Your task to perform on an android device: clear history in the chrome app Image 0: 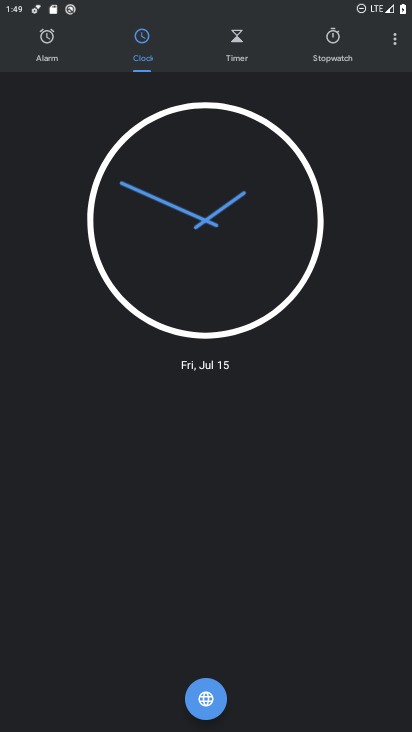
Step 0: press home button
Your task to perform on an android device: clear history in the chrome app Image 1: 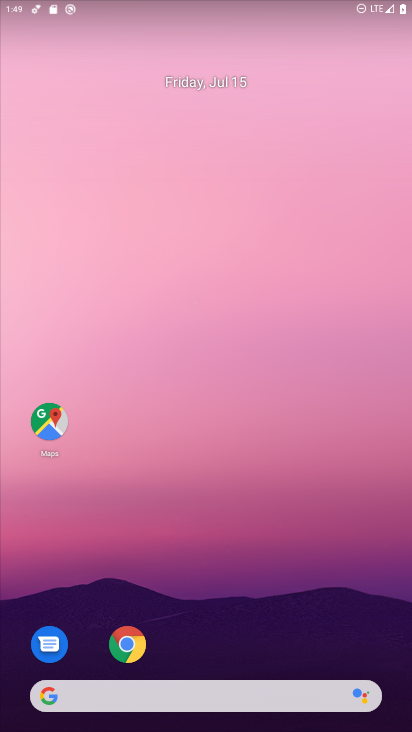
Step 1: click (139, 639)
Your task to perform on an android device: clear history in the chrome app Image 2: 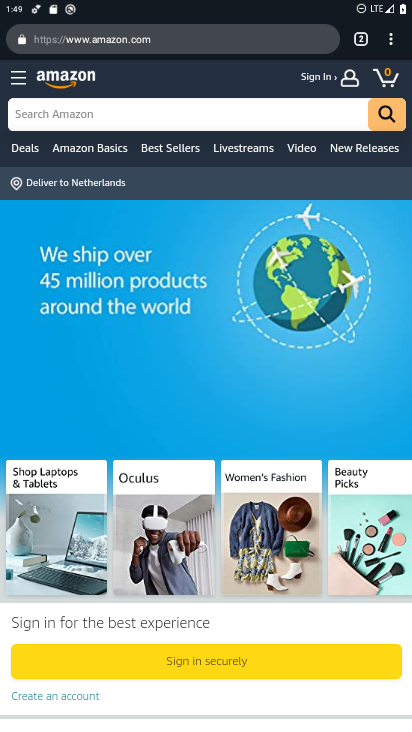
Step 2: click (387, 39)
Your task to perform on an android device: clear history in the chrome app Image 3: 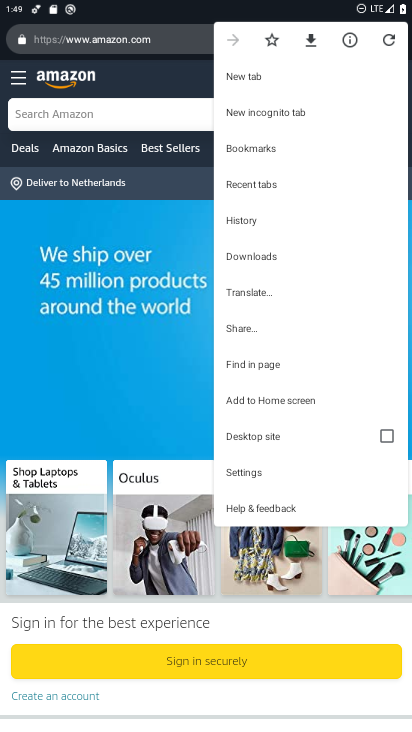
Step 3: click (302, 221)
Your task to perform on an android device: clear history in the chrome app Image 4: 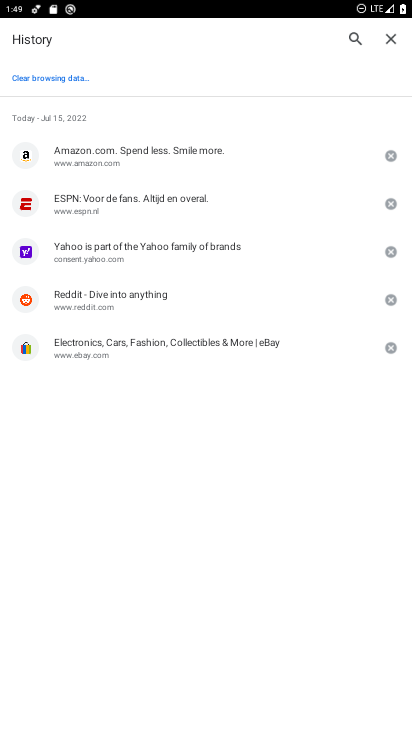
Step 4: click (38, 83)
Your task to perform on an android device: clear history in the chrome app Image 5: 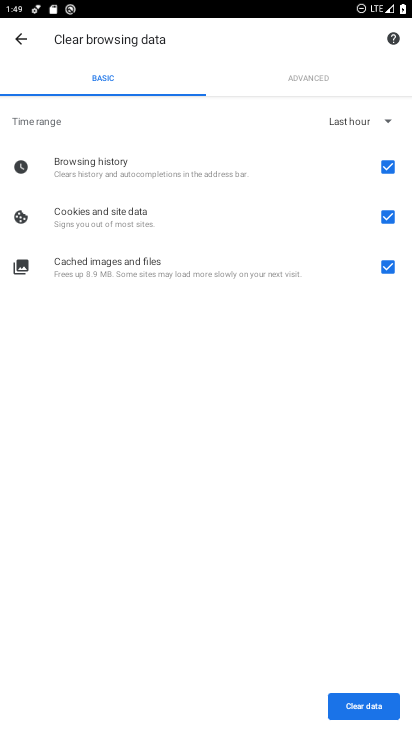
Step 5: click (383, 697)
Your task to perform on an android device: clear history in the chrome app Image 6: 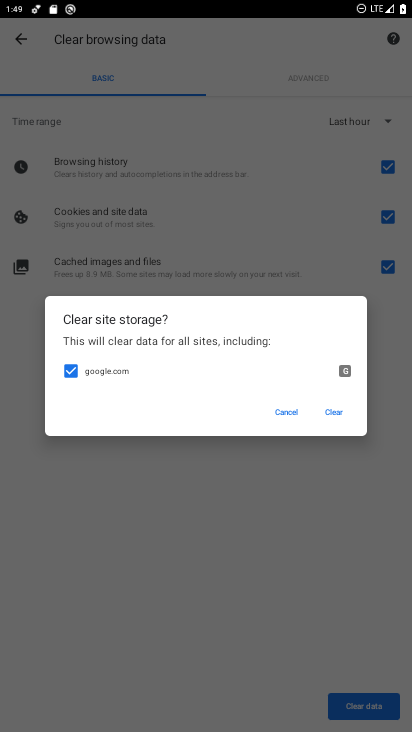
Step 6: click (336, 416)
Your task to perform on an android device: clear history in the chrome app Image 7: 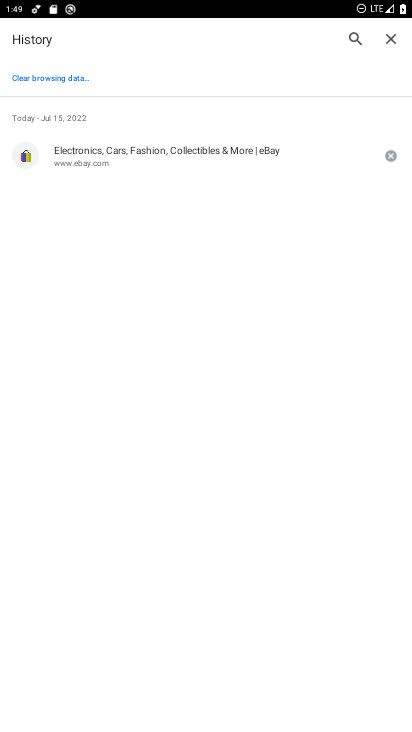
Step 7: task complete